Your task to perform on an android device: toggle notification dots Image 0: 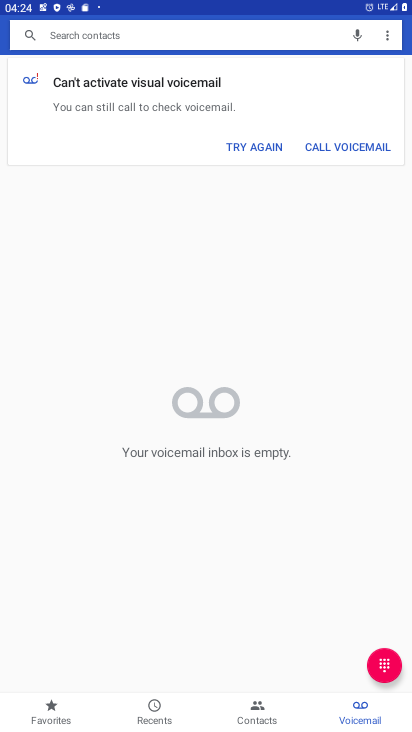
Step 0: press home button
Your task to perform on an android device: toggle notification dots Image 1: 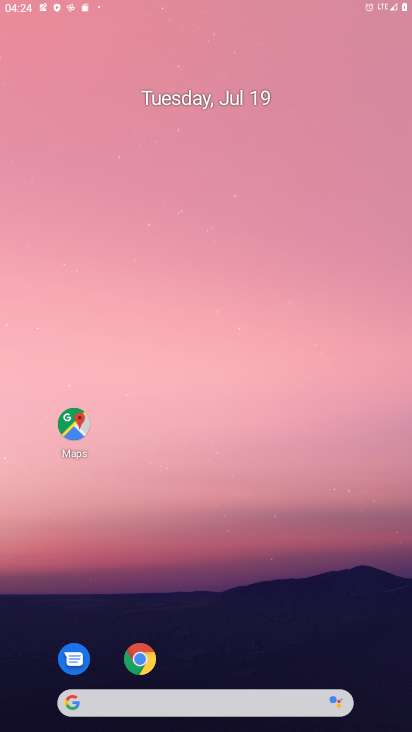
Step 1: drag from (139, 621) to (145, 76)
Your task to perform on an android device: toggle notification dots Image 2: 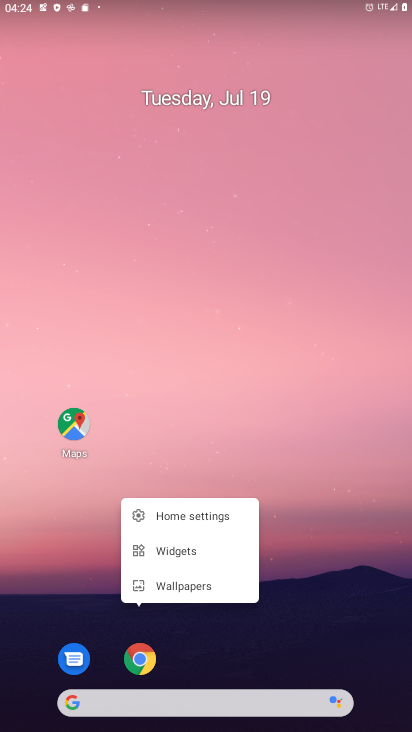
Step 2: drag from (296, 698) to (237, 13)
Your task to perform on an android device: toggle notification dots Image 3: 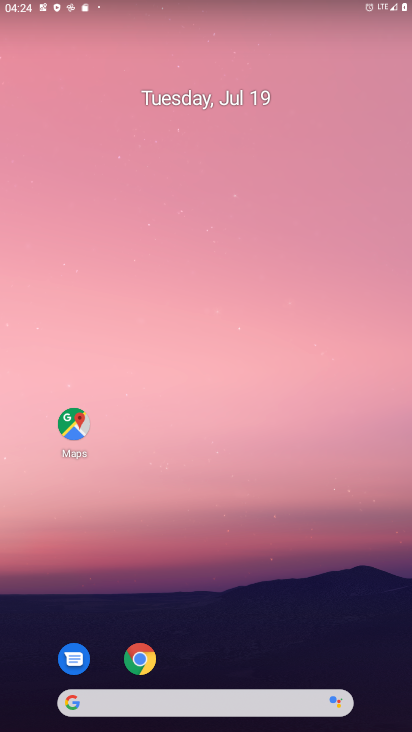
Step 3: drag from (361, 608) to (281, 8)
Your task to perform on an android device: toggle notification dots Image 4: 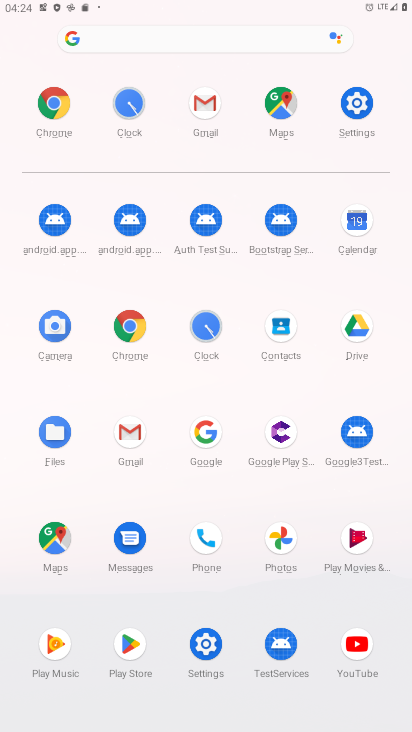
Step 4: click (201, 670)
Your task to perform on an android device: toggle notification dots Image 5: 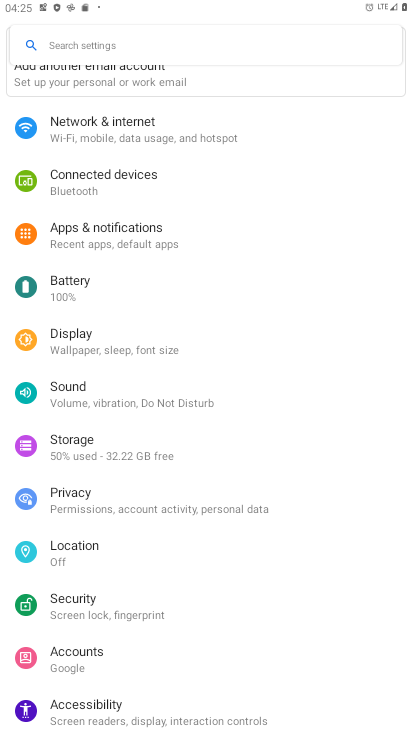
Step 5: click (59, 240)
Your task to perform on an android device: toggle notification dots Image 6: 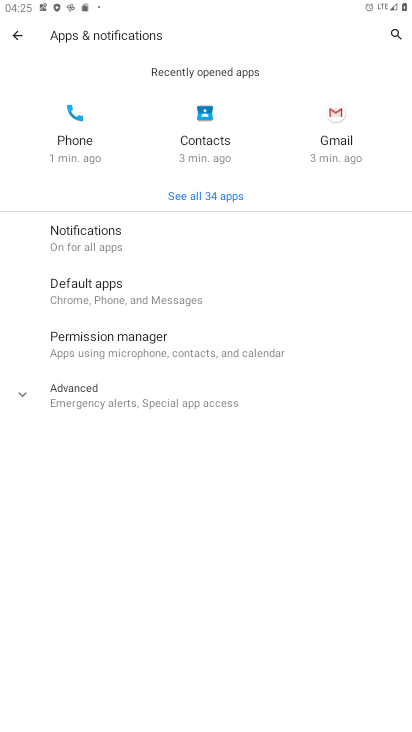
Step 6: click (82, 252)
Your task to perform on an android device: toggle notification dots Image 7: 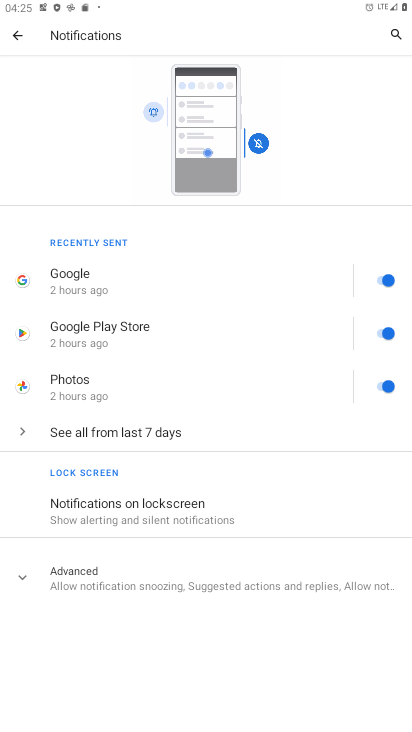
Step 7: click (168, 572)
Your task to perform on an android device: toggle notification dots Image 8: 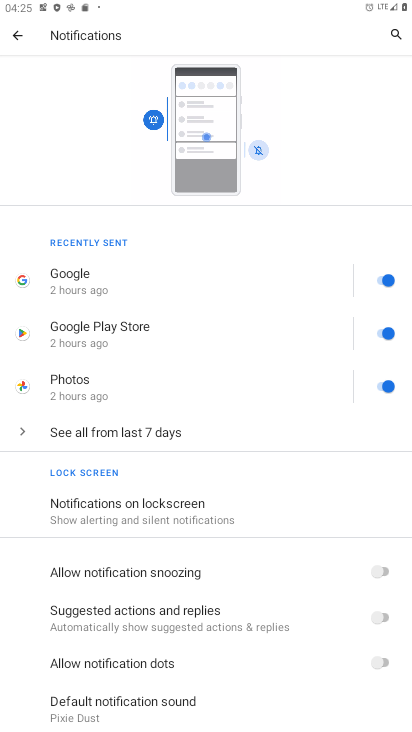
Step 8: drag from (225, 681) to (276, 254)
Your task to perform on an android device: toggle notification dots Image 9: 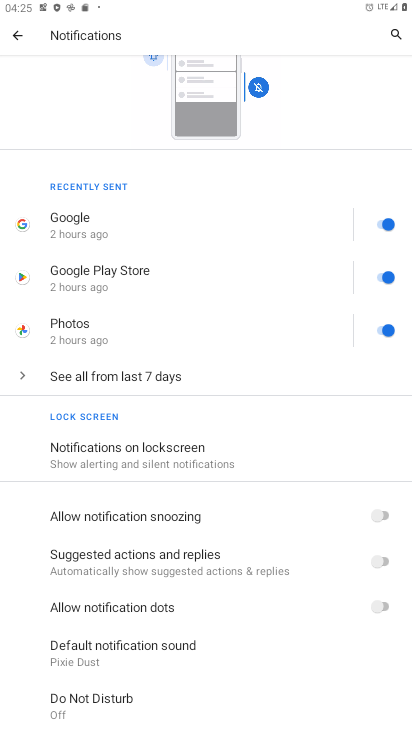
Step 9: click (140, 599)
Your task to perform on an android device: toggle notification dots Image 10: 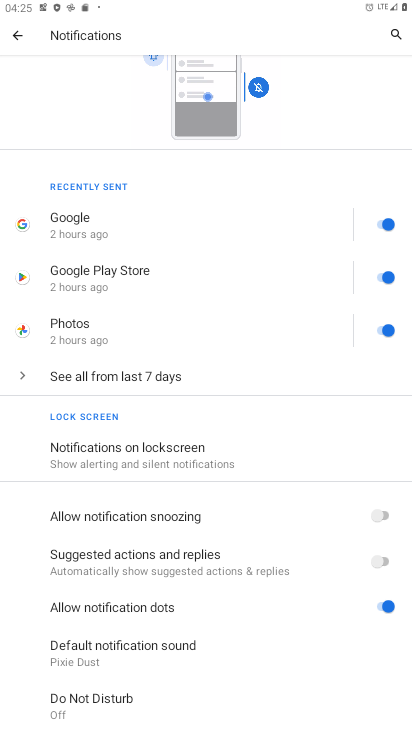
Step 10: task complete